Your task to perform on an android device: Play the last video I watched on Youtube Image 0: 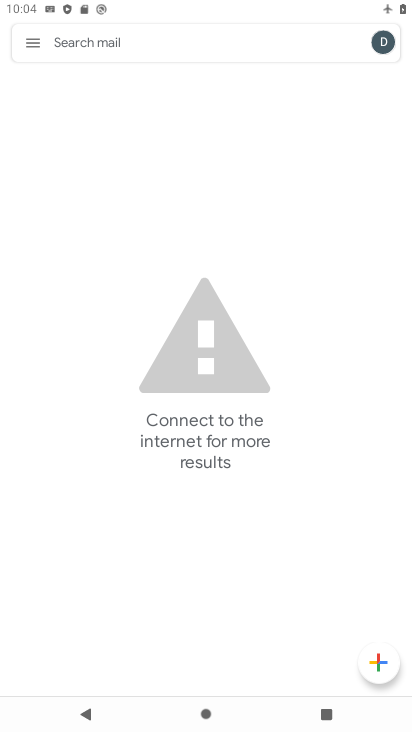
Step 0: press home button
Your task to perform on an android device: Play the last video I watched on Youtube Image 1: 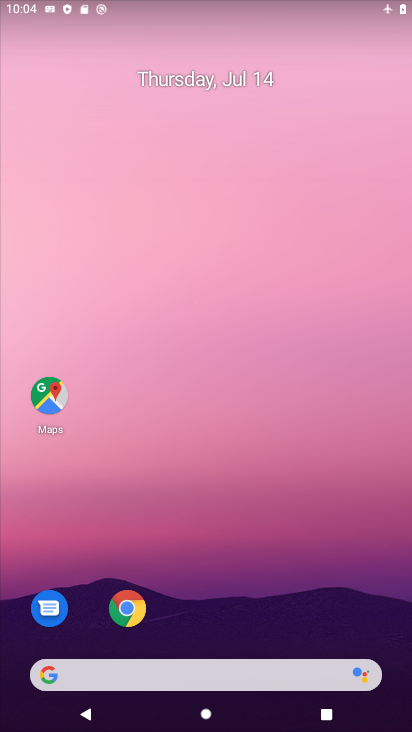
Step 1: drag from (209, 635) to (210, 12)
Your task to perform on an android device: Play the last video I watched on Youtube Image 2: 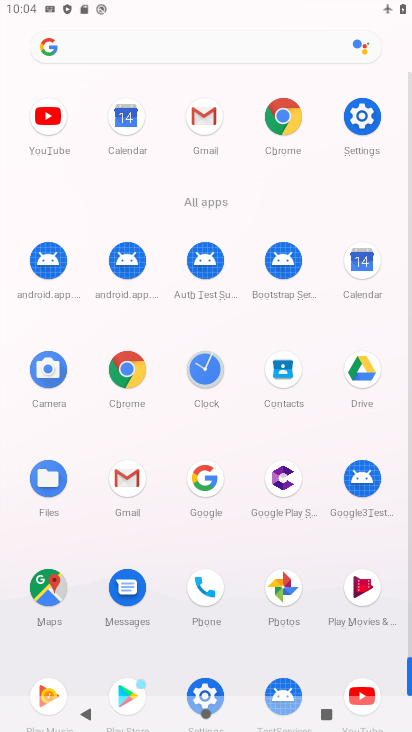
Step 2: drag from (309, 628) to (289, 240)
Your task to perform on an android device: Play the last video I watched on Youtube Image 3: 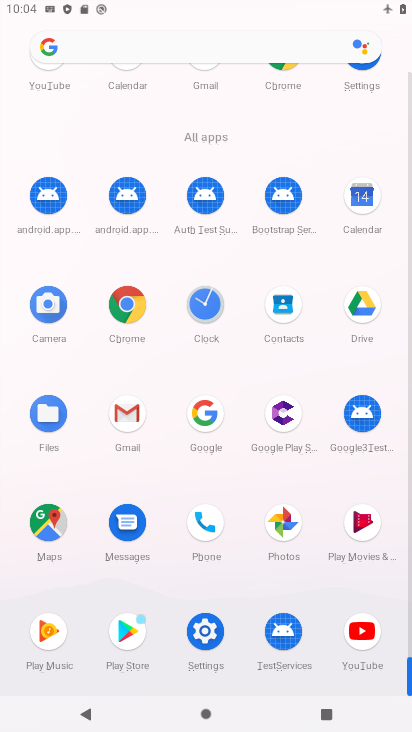
Step 3: click (360, 650)
Your task to perform on an android device: Play the last video I watched on Youtube Image 4: 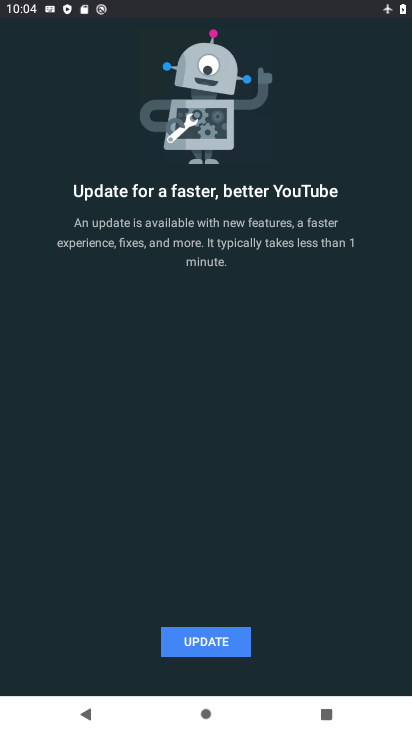
Step 4: click (203, 644)
Your task to perform on an android device: Play the last video I watched on Youtube Image 5: 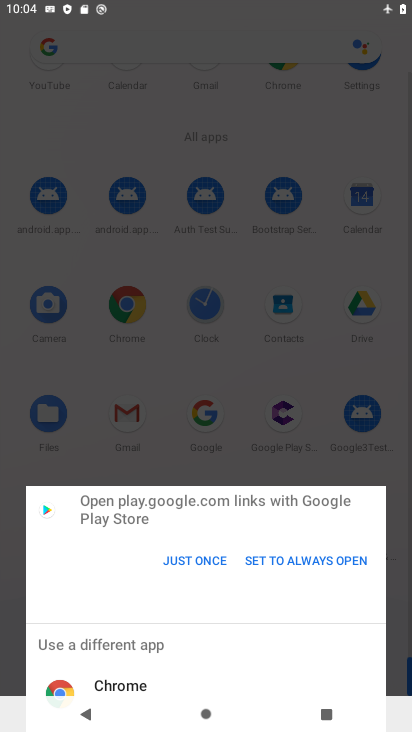
Step 5: click (186, 557)
Your task to perform on an android device: Play the last video I watched on Youtube Image 6: 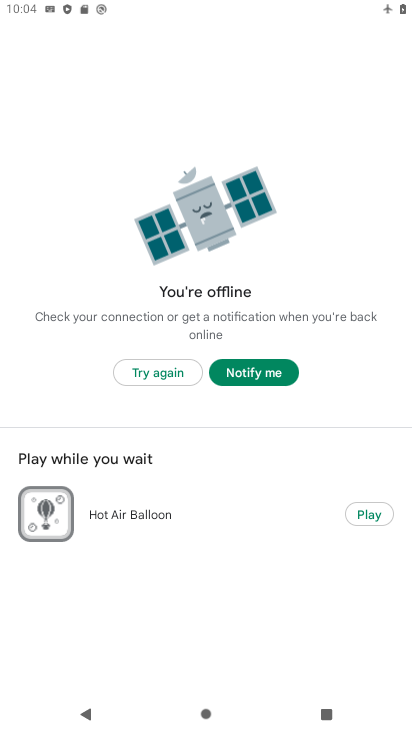
Step 6: click (167, 377)
Your task to perform on an android device: Play the last video I watched on Youtube Image 7: 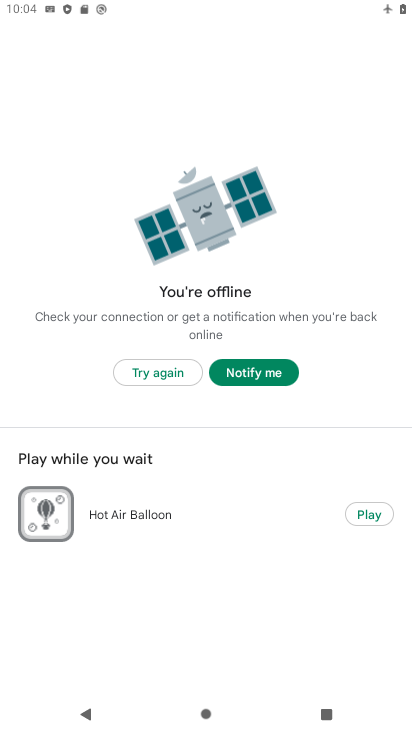
Step 7: click (162, 378)
Your task to perform on an android device: Play the last video I watched on Youtube Image 8: 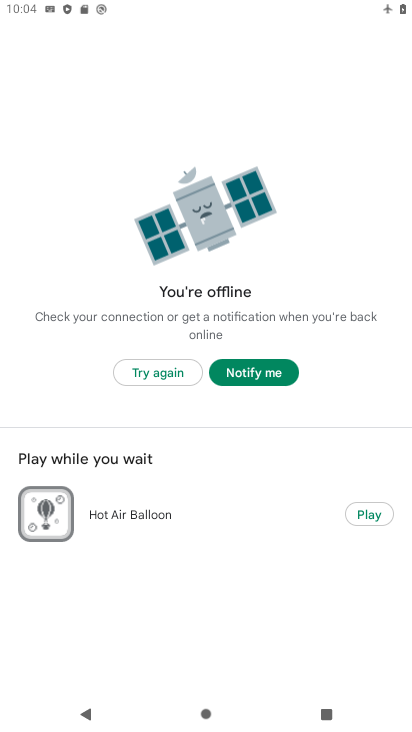
Step 8: task complete